Your task to perform on an android device: create a new album in the google photos Image 0: 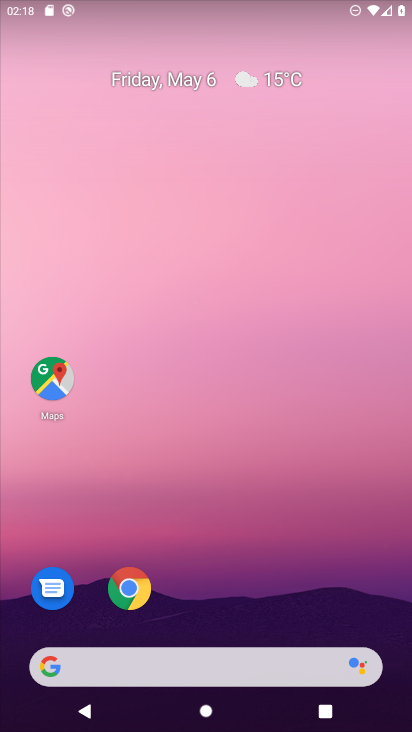
Step 0: drag from (255, 634) to (2, 98)
Your task to perform on an android device: create a new album in the google photos Image 1: 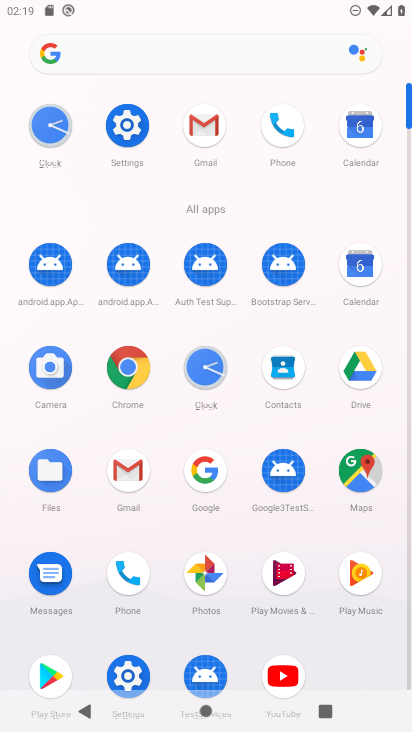
Step 1: click (225, 580)
Your task to perform on an android device: create a new album in the google photos Image 2: 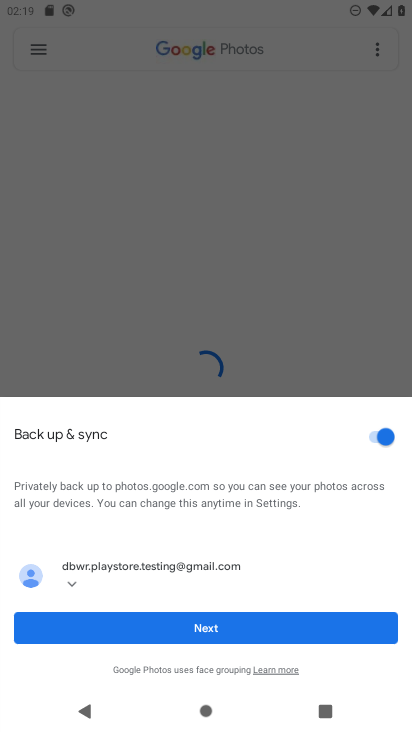
Step 2: click (215, 627)
Your task to perform on an android device: create a new album in the google photos Image 3: 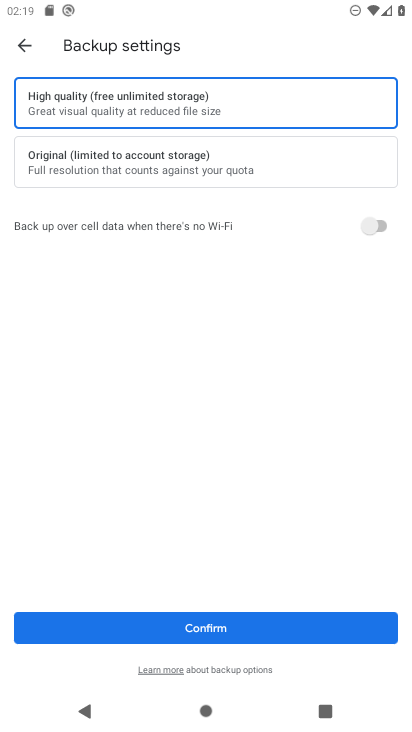
Step 3: click (215, 627)
Your task to perform on an android device: create a new album in the google photos Image 4: 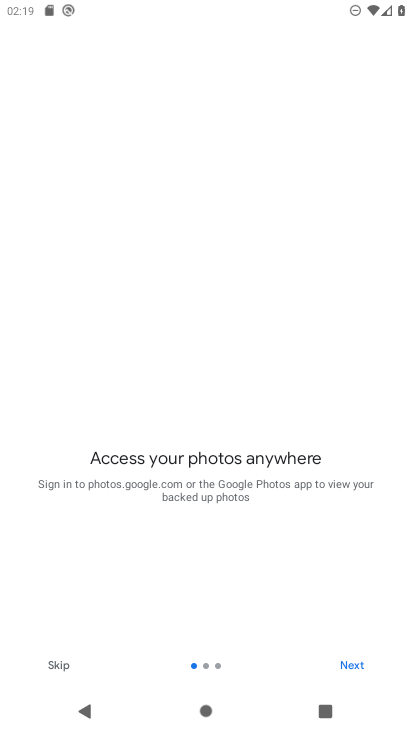
Step 4: click (36, 658)
Your task to perform on an android device: create a new album in the google photos Image 5: 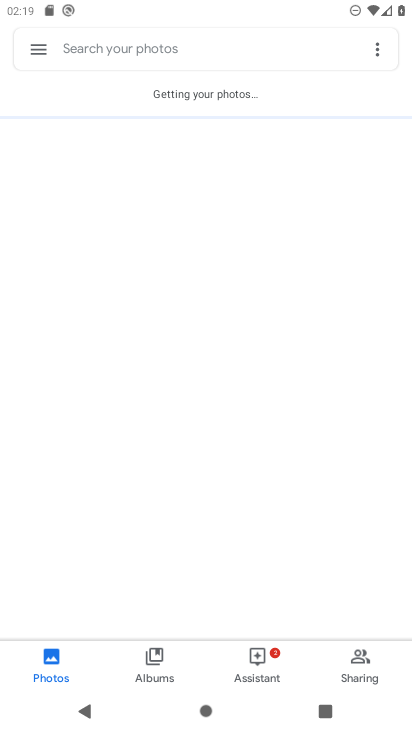
Step 5: click (160, 666)
Your task to perform on an android device: create a new album in the google photos Image 6: 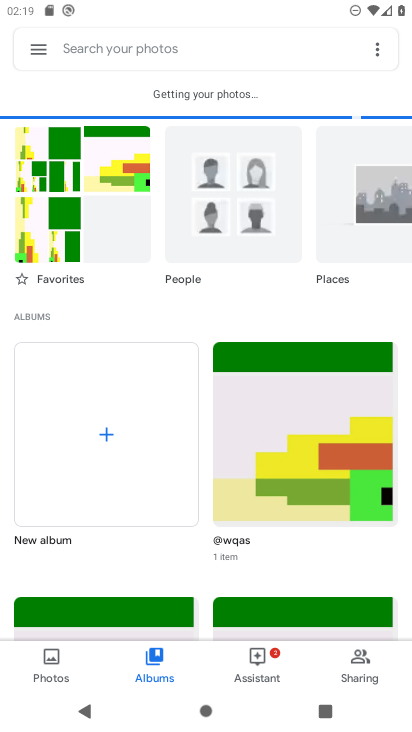
Step 6: click (53, 664)
Your task to perform on an android device: create a new album in the google photos Image 7: 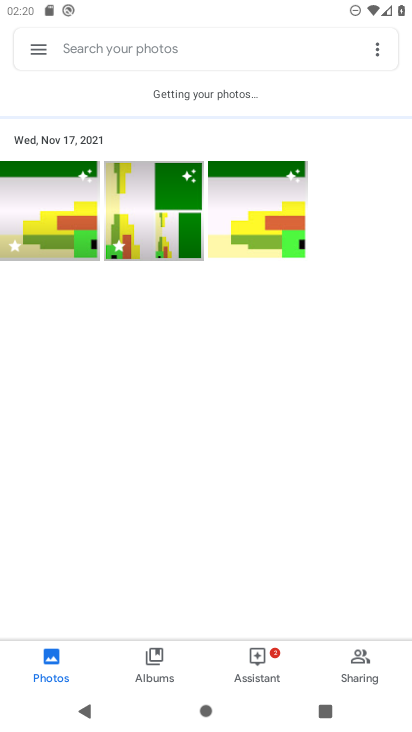
Step 7: click (70, 188)
Your task to perform on an android device: create a new album in the google photos Image 8: 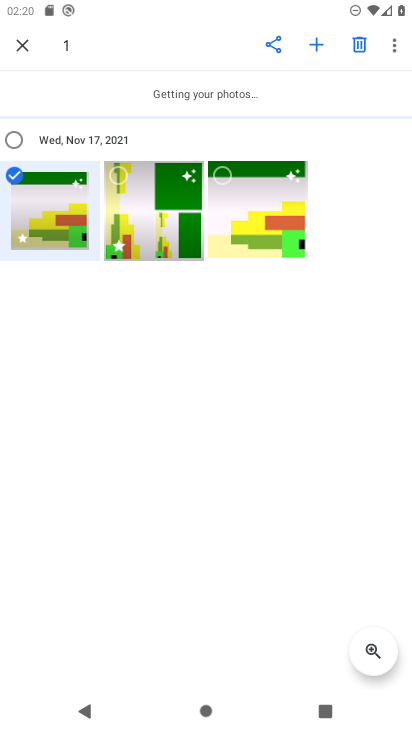
Step 8: click (315, 42)
Your task to perform on an android device: create a new album in the google photos Image 9: 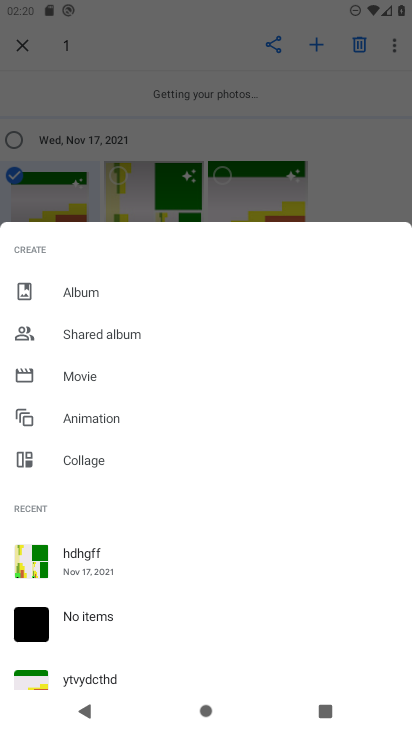
Step 9: click (89, 292)
Your task to perform on an android device: create a new album in the google photos Image 10: 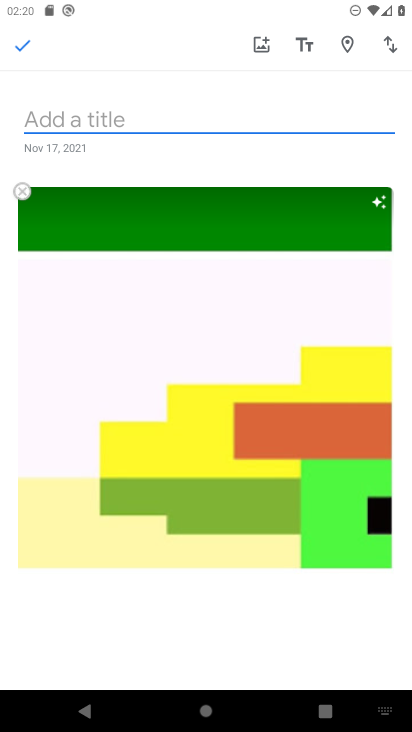
Step 10: type "jio"
Your task to perform on an android device: create a new album in the google photos Image 11: 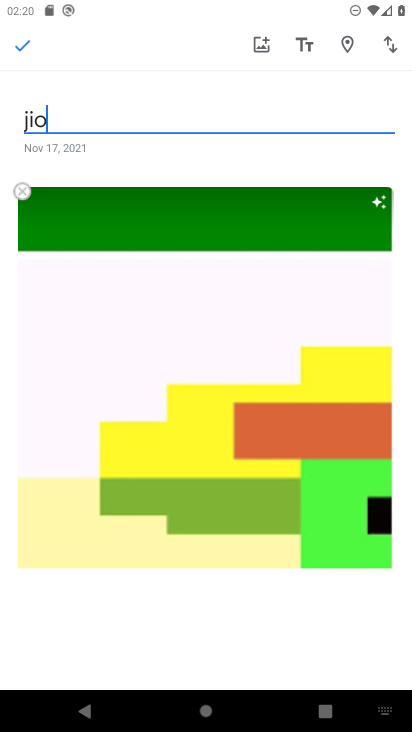
Step 11: click (19, 36)
Your task to perform on an android device: create a new album in the google photos Image 12: 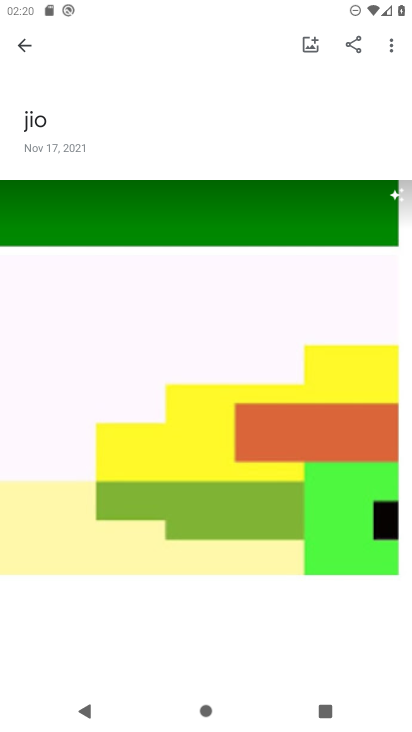
Step 12: task complete